Your task to perform on an android device: check the backup settings in the google photos Image 0: 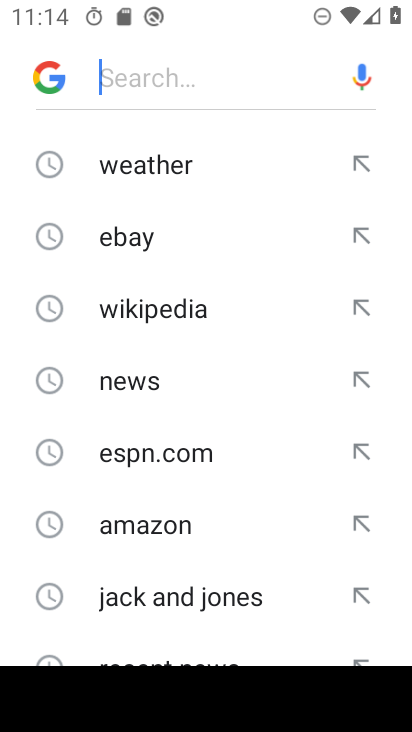
Step 0: press back button
Your task to perform on an android device: check the backup settings in the google photos Image 1: 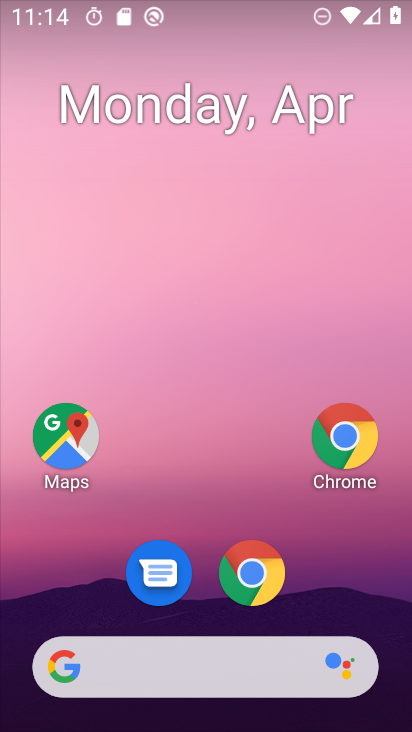
Step 1: drag from (325, 570) to (262, 156)
Your task to perform on an android device: check the backup settings in the google photos Image 2: 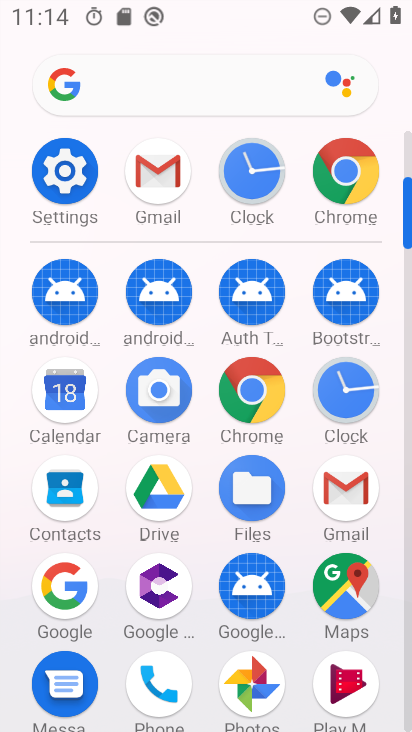
Step 2: drag from (387, 580) to (319, 305)
Your task to perform on an android device: check the backup settings in the google photos Image 3: 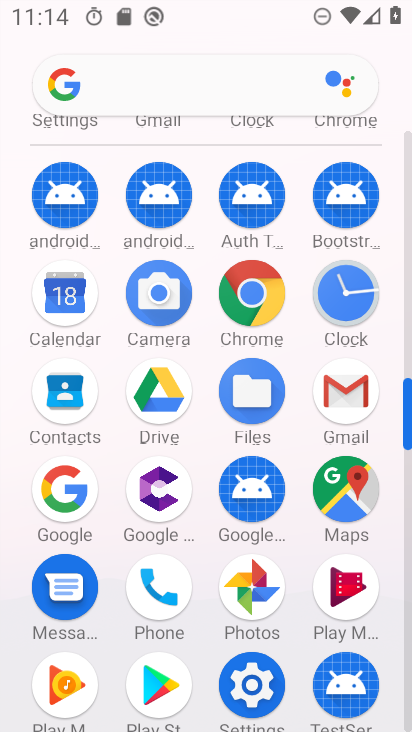
Step 3: click (233, 591)
Your task to perform on an android device: check the backup settings in the google photos Image 4: 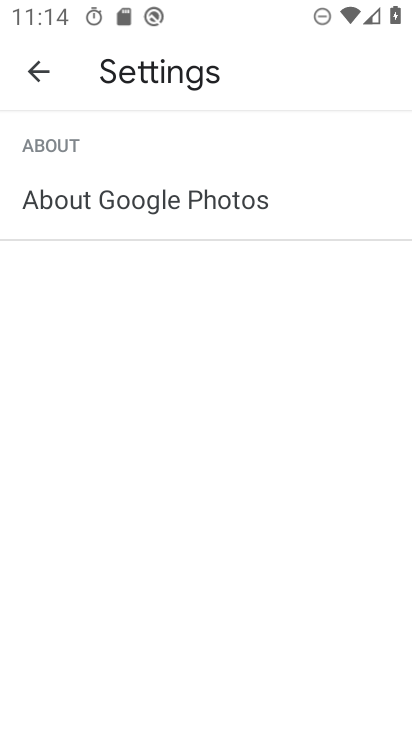
Step 4: click (24, 89)
Your task to perform on an android device: check the backup settings in the google photos Image 5: 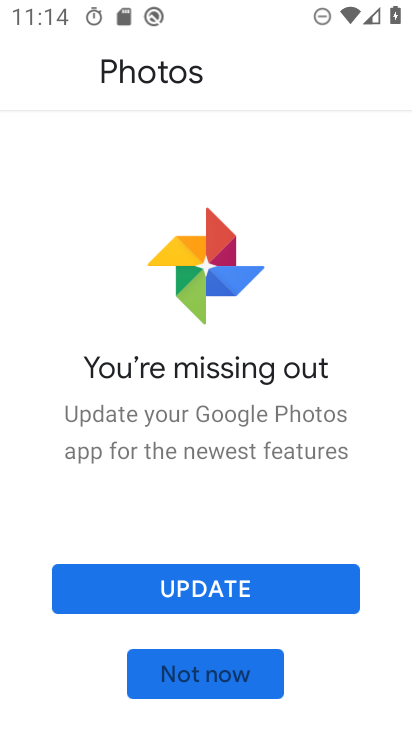
Step 5: click (208, 672)
Your task to perform on an android device: check the backup settings in the google photos Image 6: 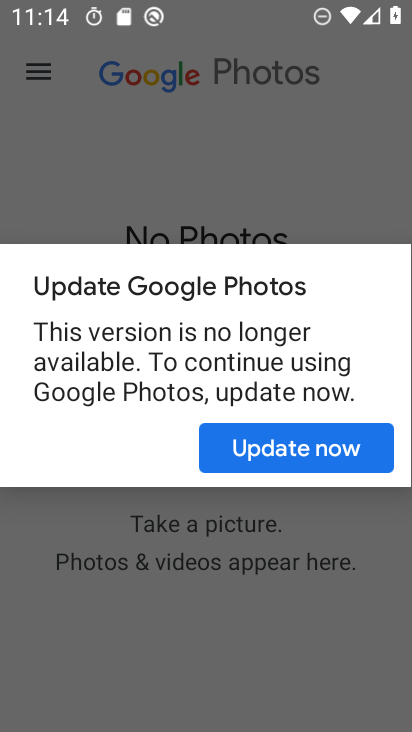
Step 6: click (265, 461)
Your task to perform on an android device: check the backup settings in the google photos Image 7: 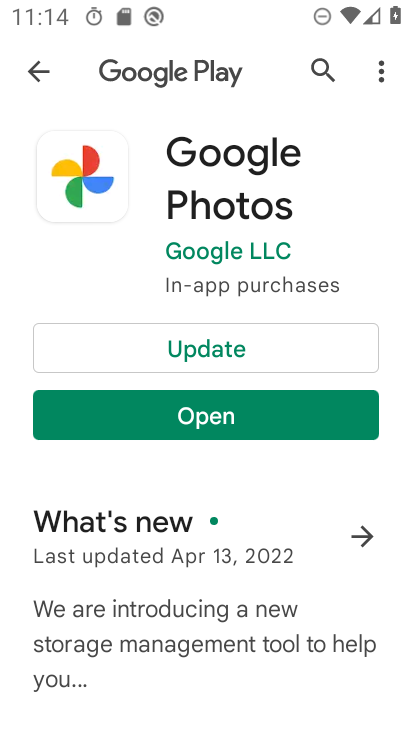
Step 7: click (220, 348)
Your task to perform on an android device: check the backup settings in the google photos Image 8: 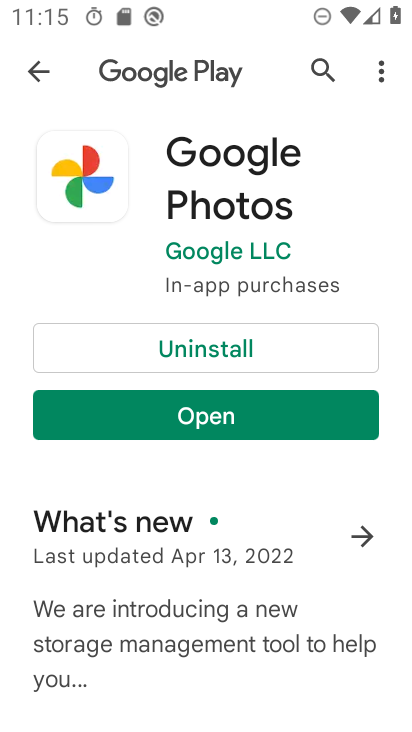
Step 8: click (184, 406)
Your task to perform on an android device: check the backup settings in the google photos Image 9: 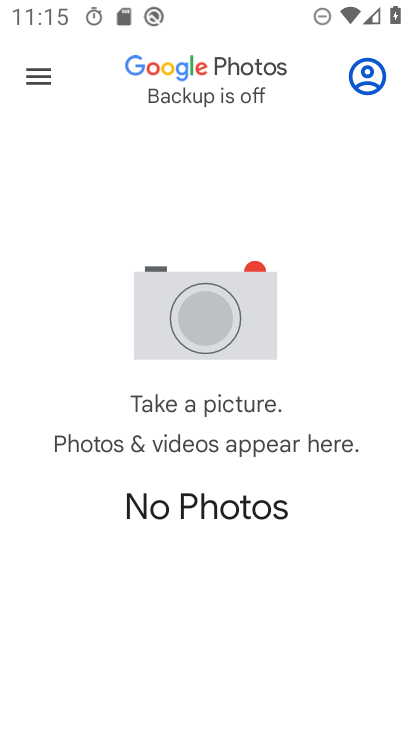
Step 9: click (39, 56)
Your task to perform on an android device: check the backup settings in the google photos Image 10: 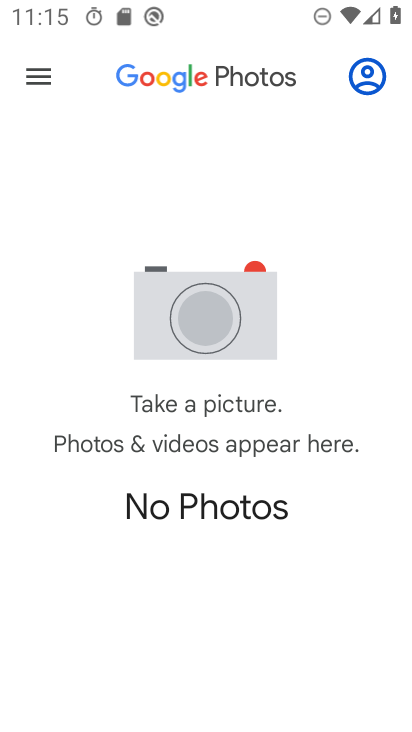
Step 10: click (54, 84)
Your task to perform on an android device: check the backup settings in the google photos Image 11: 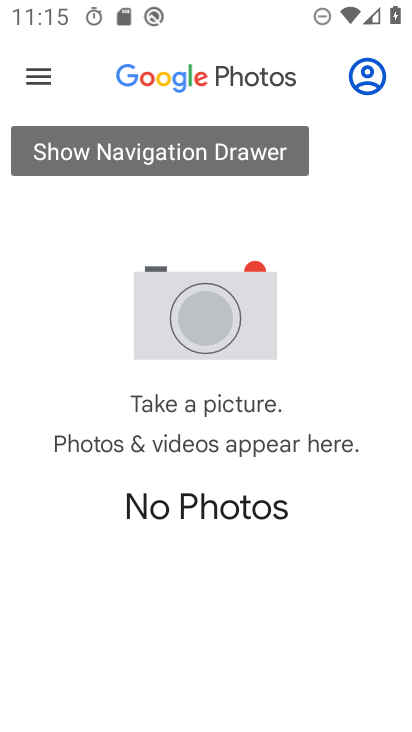
Step 11: click (53, 84)
Your task to perform on an android device: check the backup settings in the google photos Image 12: 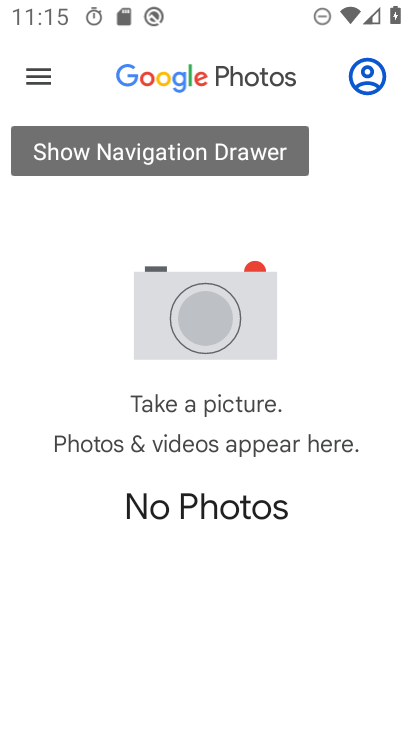
Step 12: click (53, 84)
Your task to perform on an android device: check the backup settings in the google photos Image 13: 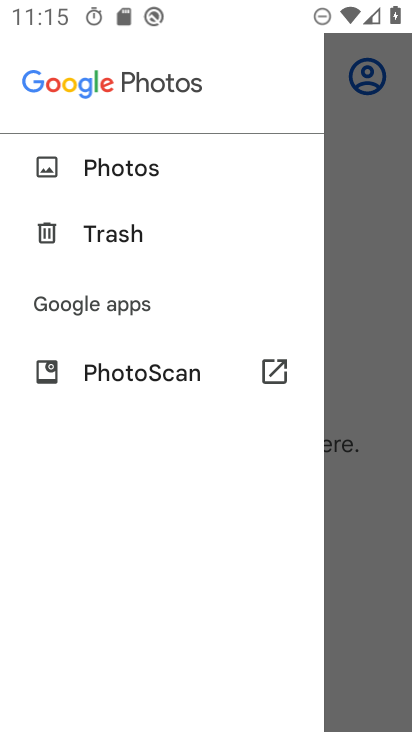
Step 13: task complete